Your task to perform on an android device: find which apps use the phone's location Image 0: 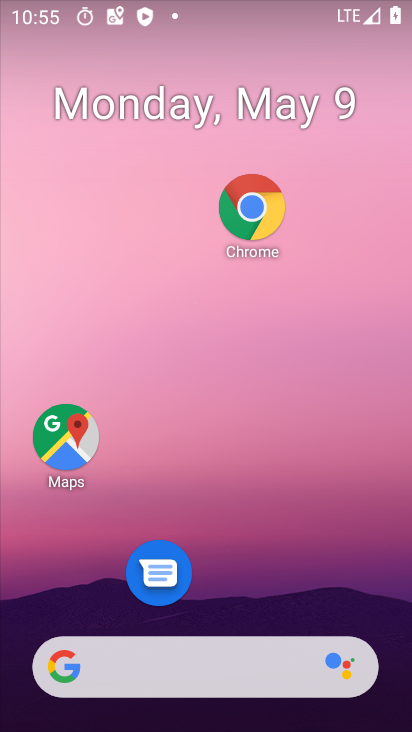
Step 0: drag from (267, 557) to (201, 149)
Your task to perform on an android device: find which apps use the phone's location Image 1: 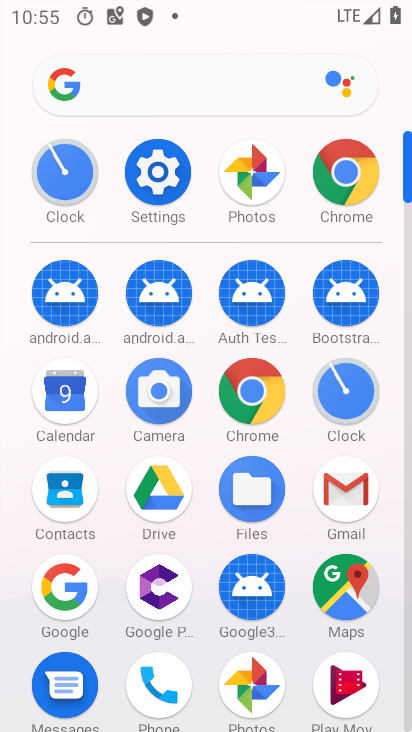
Step 1: drag from (194, 483) to (229, 213)
Your task to perform on an android device: find which apps use the phone's location Image 2: 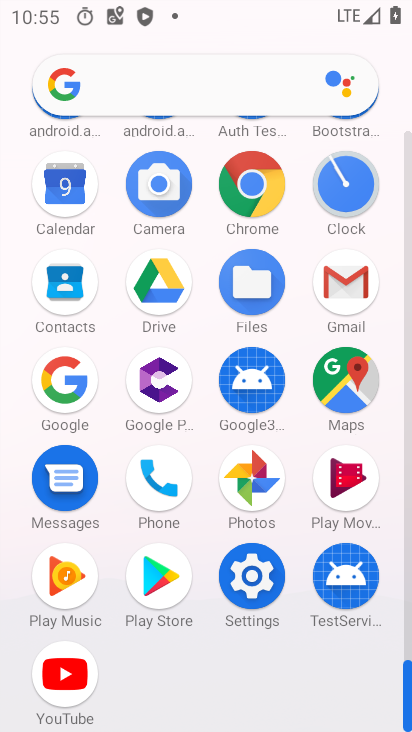
Step 2: click (238, 589)
Your task to perform on an android device: find which apps use the phone's location Image 3: 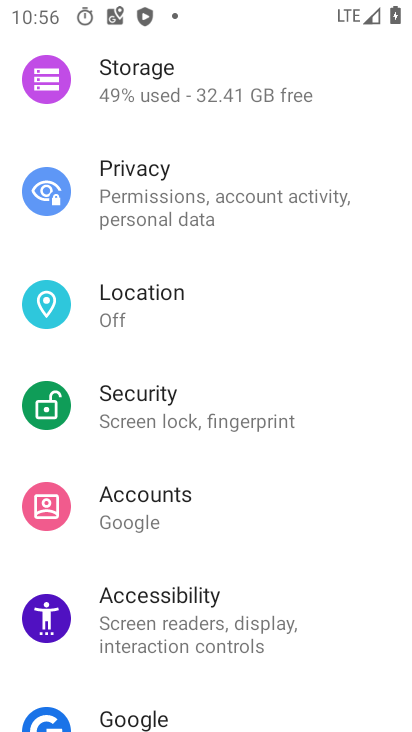
Step 3: click (218, 304)
Your task to perform on an android device: find which apps use the phone's location Image 4: 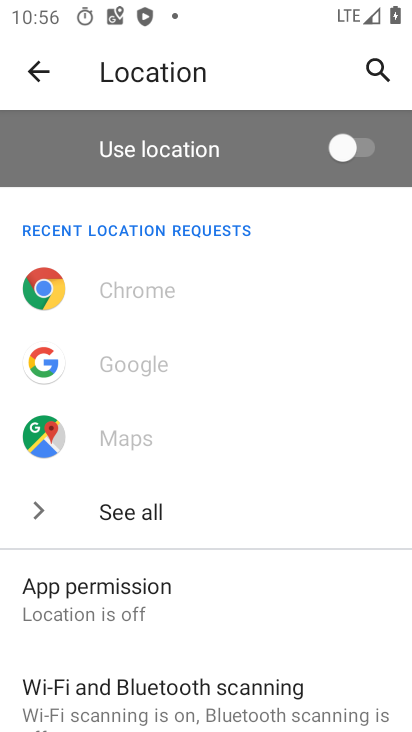
Step 4: click (139, 591)
Your task to perform on an android device: find which apps use the phone's location Image 5: 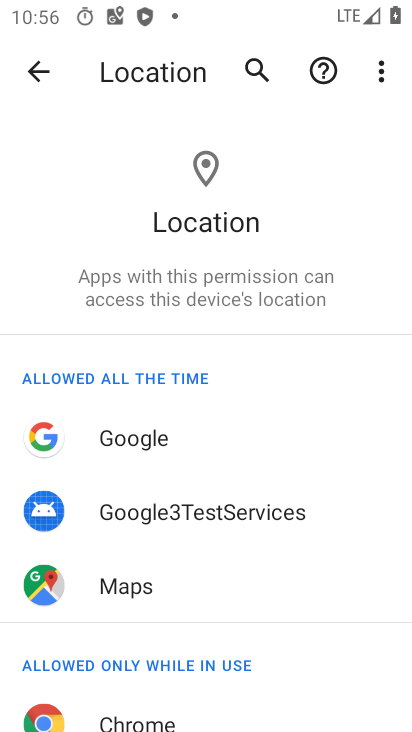
Step 5: task complete